Your task to perform on an android device: Open my contact list Image 0: 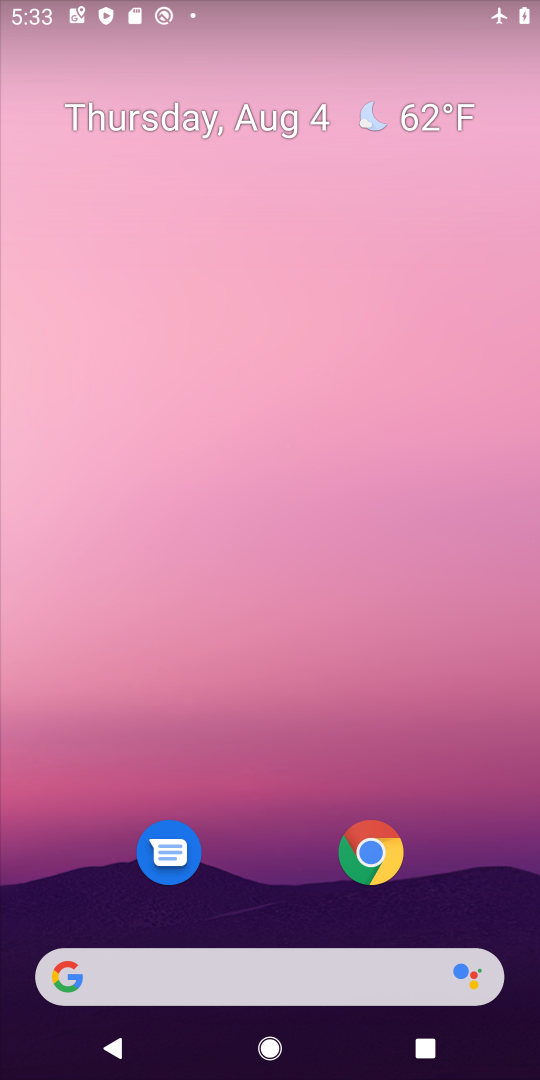
Step 0: drag from (260, 751) to (262, 93)
Your task to perform on an android device: Open my contact list Image 1: 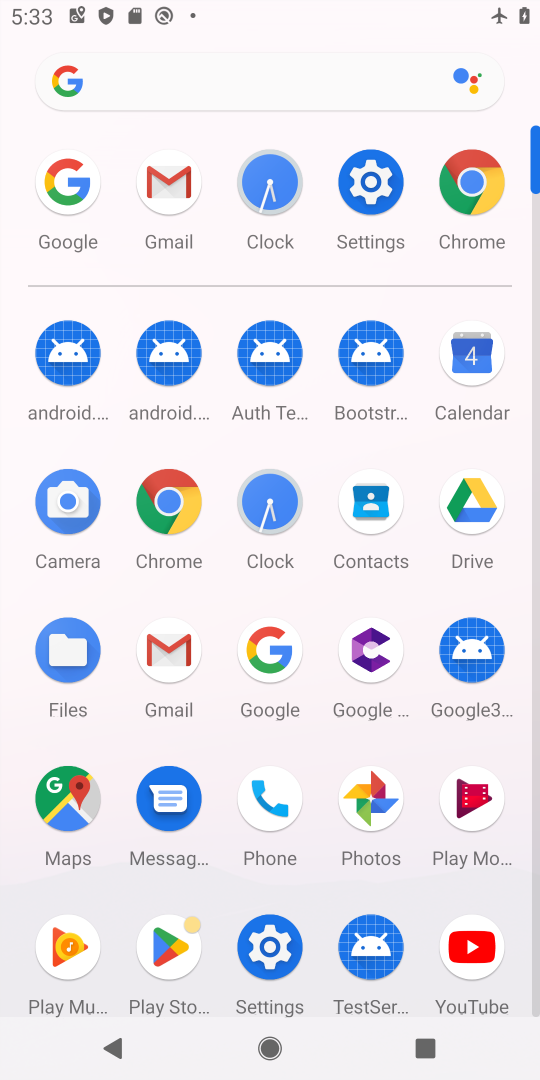
Step 1: click (363, 519)
Your task to perform on an android device: Open my contact list Image 2: 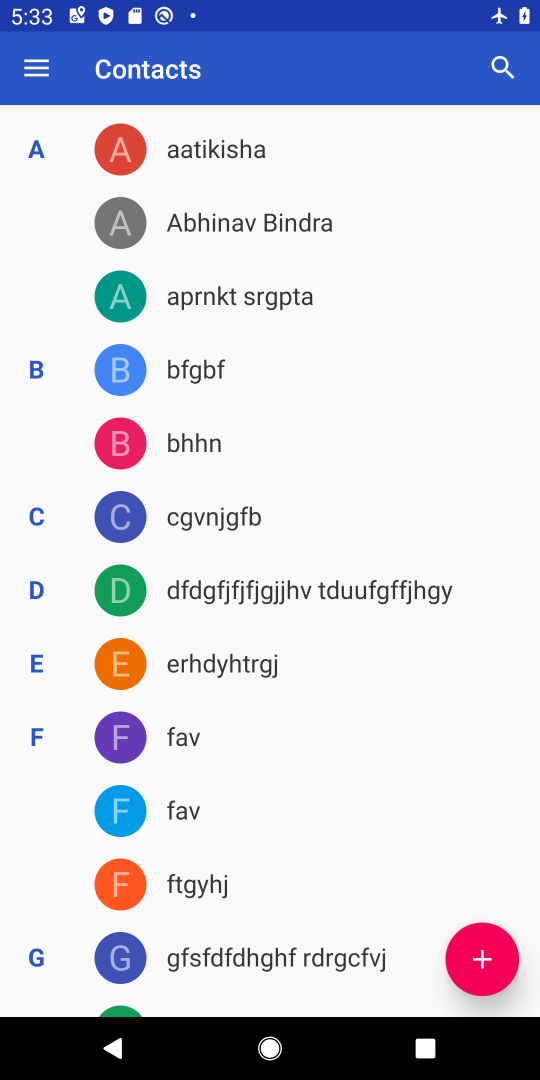
Step 2: task complete